Your task to perform on an android device: Go to Google Image 0: 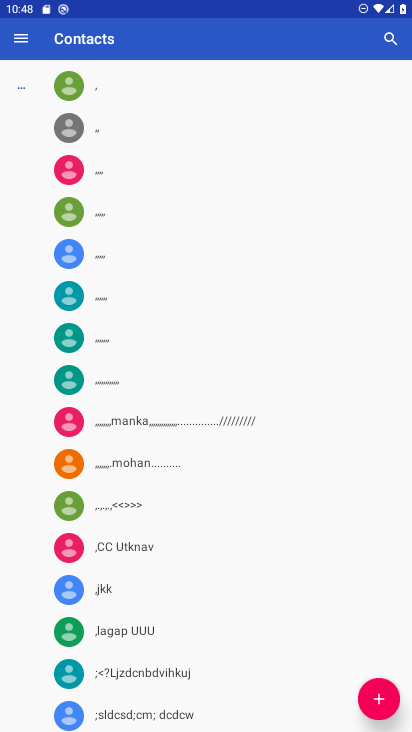
Step 0: press home button
Your task to perform on an android device: Go to Google Image 1: 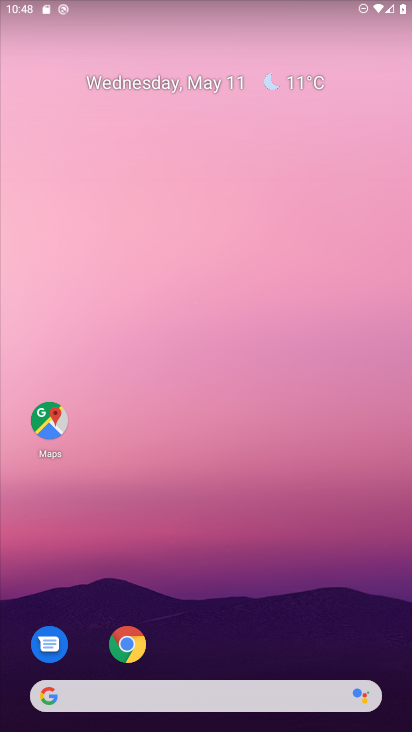
Step 1: drag from (244, 635) to (256, 19)
Your task to perform on an android device: Go to Google Image 2: 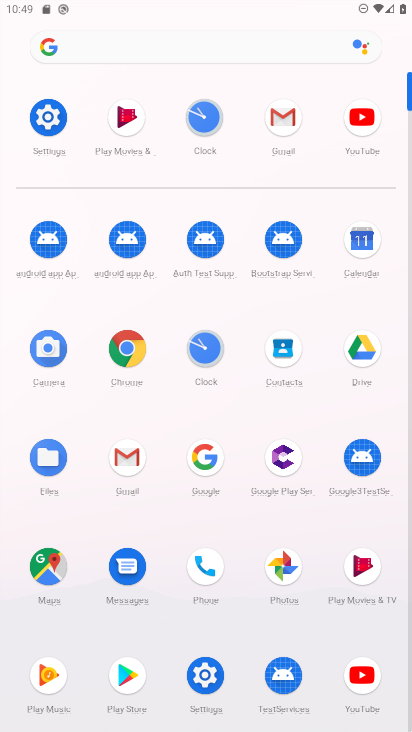
Step 2: click (202, 473)
Your task to perform on an android device: Go to Google Image 3: 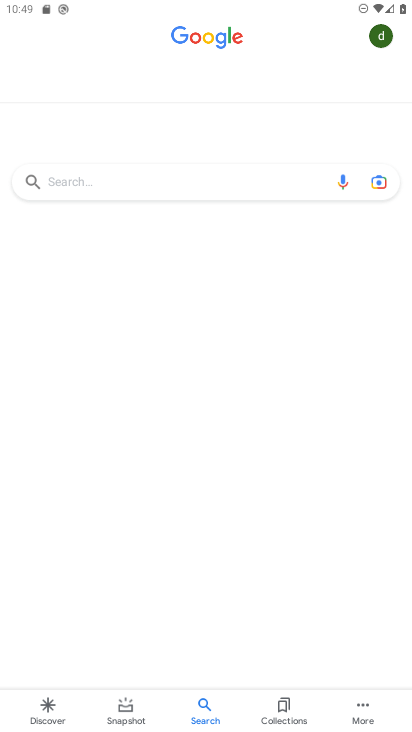
Step 3: task complete